Your task to perform on an android device: turn off notifications in google photos Image 0: 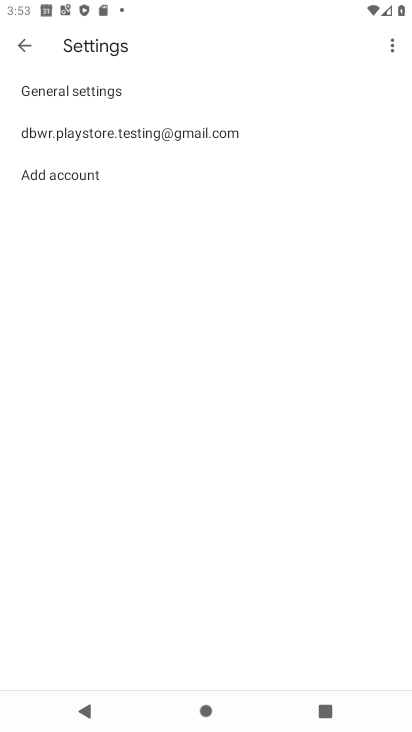
Step 0: press home button
Your task to perform on an android device: turn off notifications in google photos Image 1: 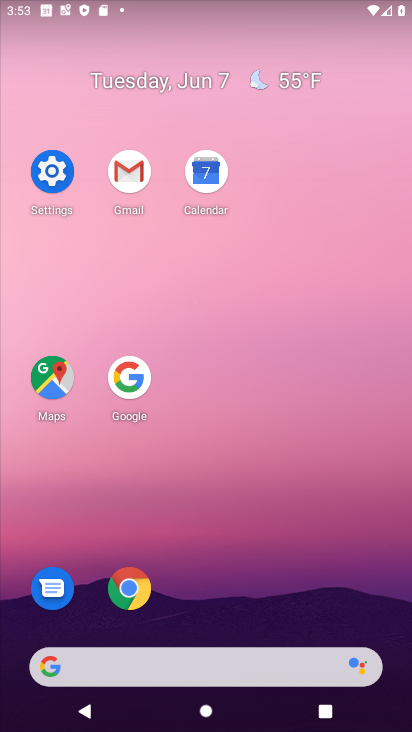
Step 1: drag from (263, 547) to (292, 162)
Your task to perform on an android device: turn off notifications in google photos Image 2: 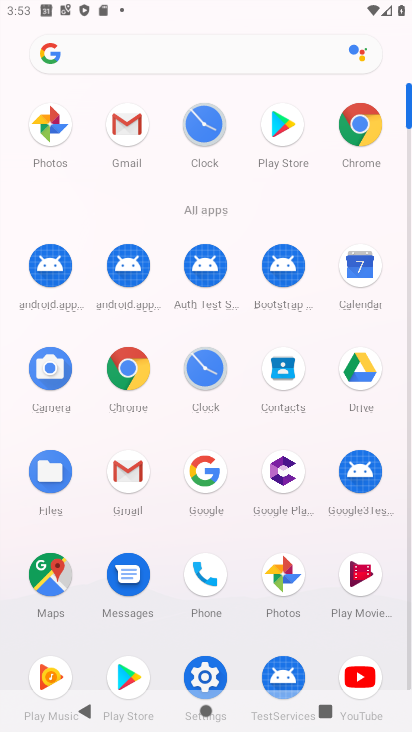
Step 2: click (278, 560)
Your task to perform on an android device: turn off notifications in google photos Image 3: 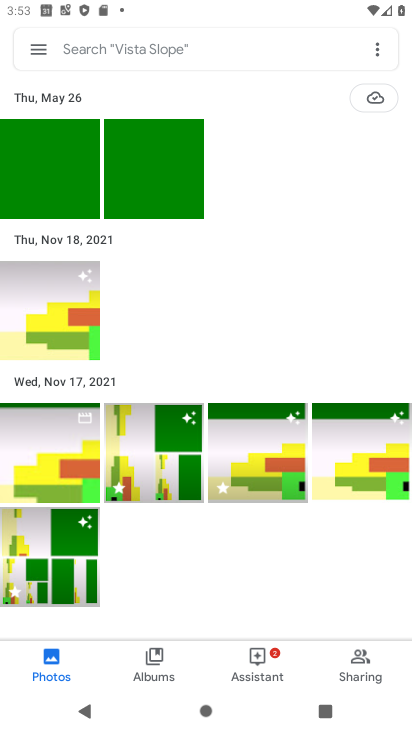
Step 3: click (37, 49)
Your task to perform on an android device: turn off notifications in google photos Image 4: 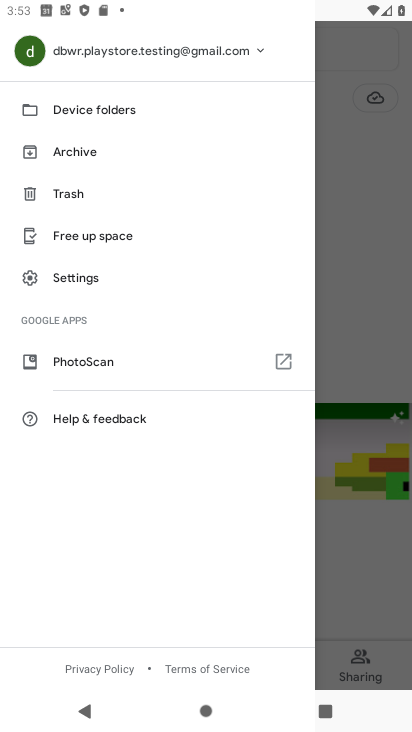
Step 4: click (81, 277)
Your task to perform on an android device: turn off notifications in google photos Image 5: 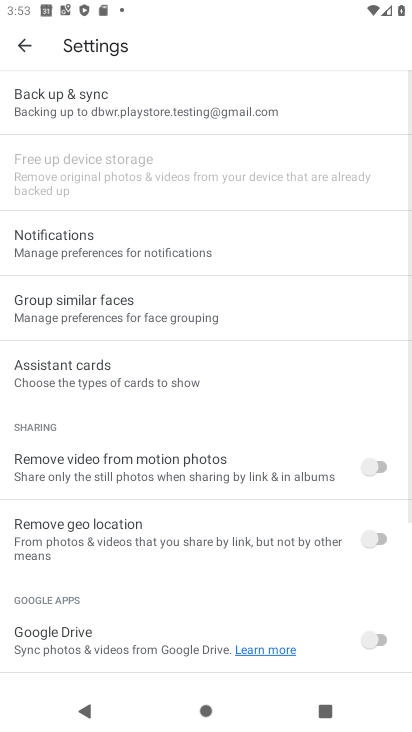
Step 5: click (106, 253)
Your task to perform on an android device: turn off notifications in google photos Image 6: 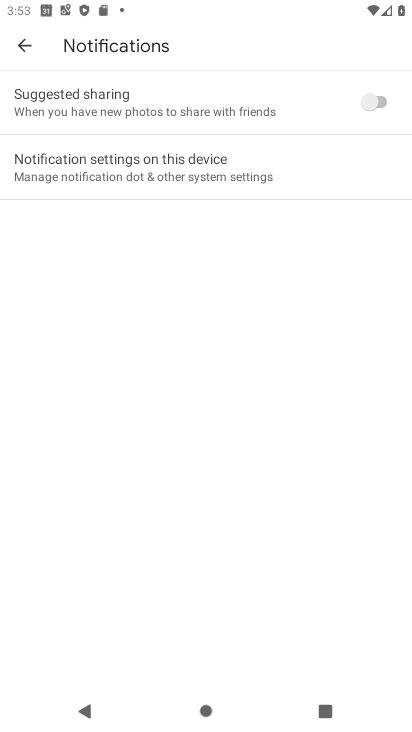
Step 6: click (217, 153)
Your task to perform on an android device: turn off notifications in google photos Image 7: 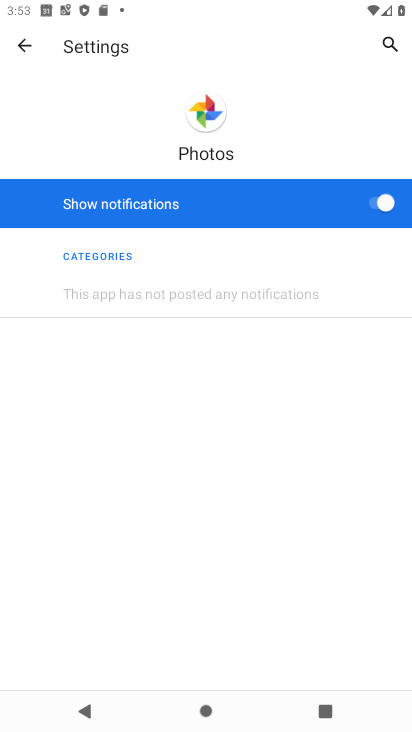
Step 7: click (397, 196)
Your task to perform on an android device: turn off notifications in google photos Image 8: 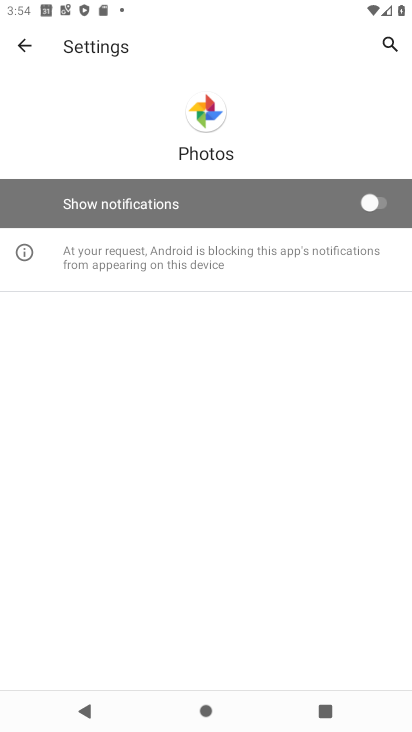
Step 8: task complete